Your task to perform on an android device: Play the last video I watched on Youtube Image 0: 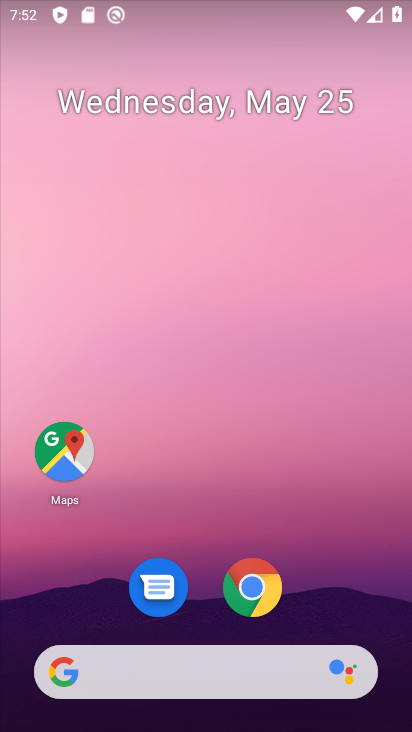
Step 0: drag from (309, 600) to (269, 104)
Your task to perform on an android device: Play the last video I watched on Youtube Image 1: 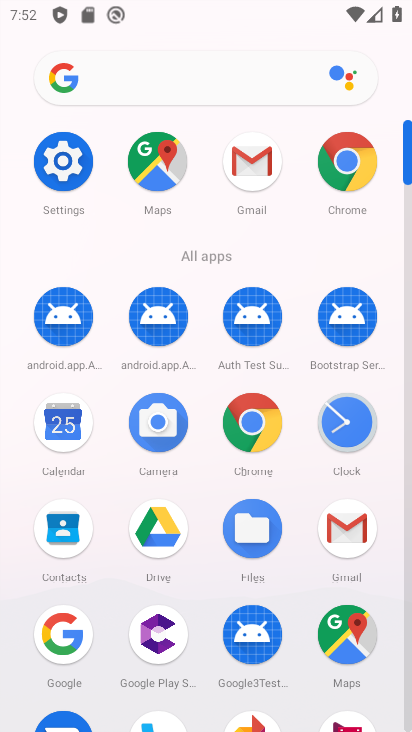
Step 1: drag from (272, 291) to (324, 6)
Your task to perform on an android device: Play the last video I watched on Youtube Image 2: 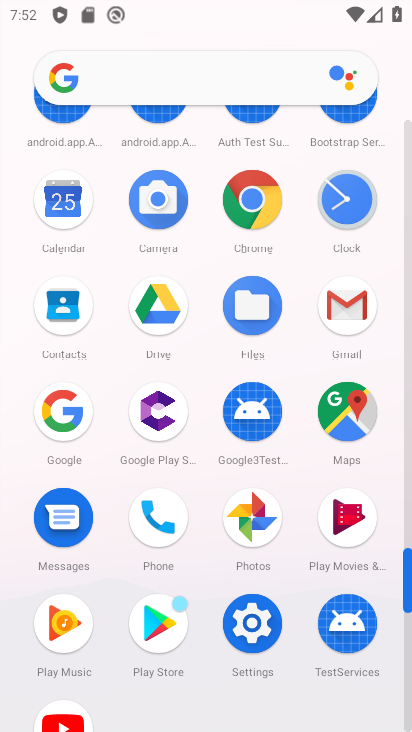
Step 2: click (62, 711)
Your task to perform on an android device: Play the last video I watched on Youtube Image 3: 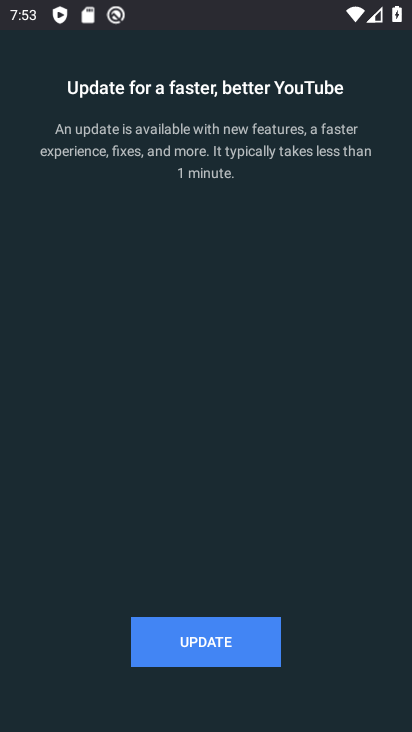
Step 3: click (181, 658)
Your task to perform on an android device: Play the last video I watched on Youtube Image 4: 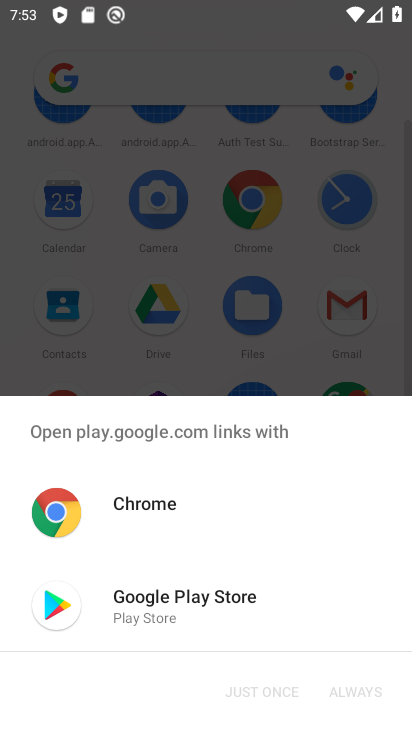
Step 4: click (143, 596)
Your task to perform on an android device: Play the last video I watched on Youtube Image 5: 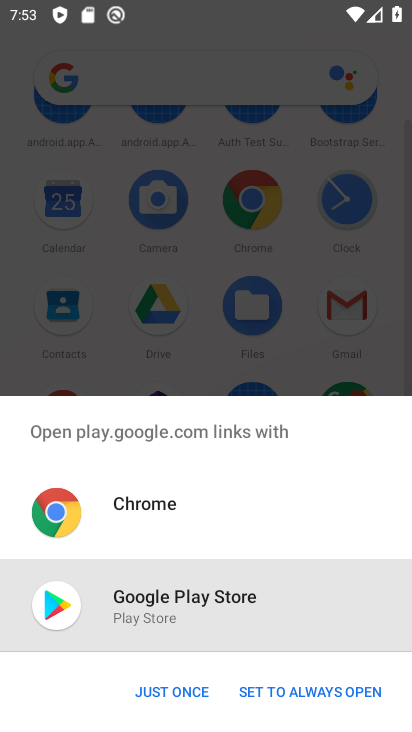
Step 5: click (170, 683)
Your task to perform on an android device: Play the last video I watched on Youtube Image 6: 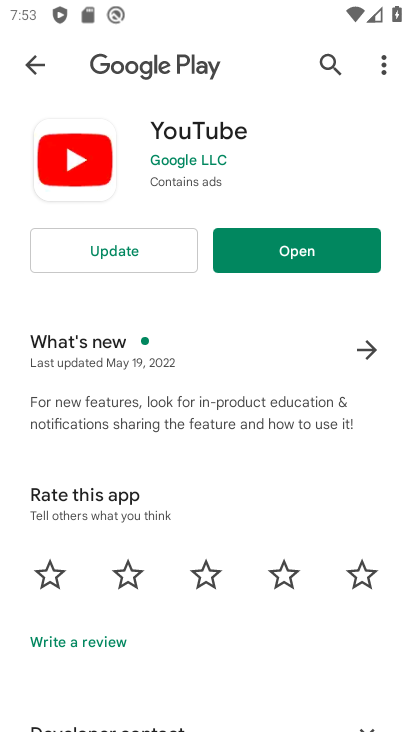
Step 6: click (122, 249)
Your task to perform on an android device: Play the last video I watched on Youtube Image 7: 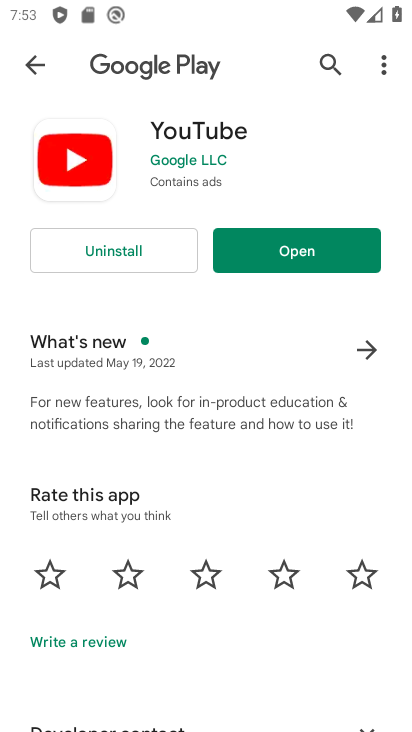
Step 7: click (255, 249)
Your task to perform on an android device: Play the last video I watched on Youtube Image 8: 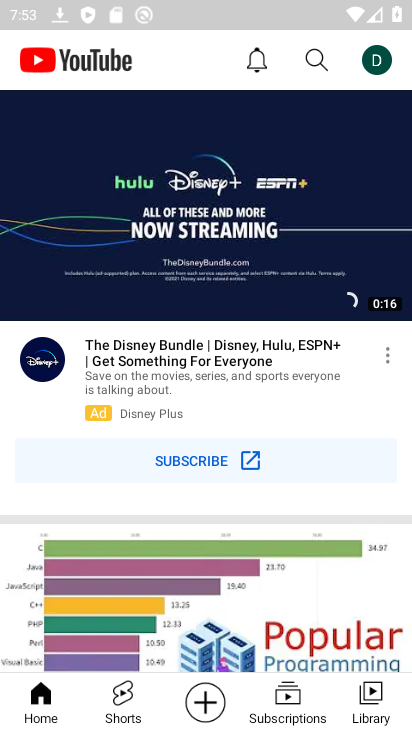
Step 8: click (364, 694)
Your task to perform on an android device: Play the last video I watched on Youtube Image 9: 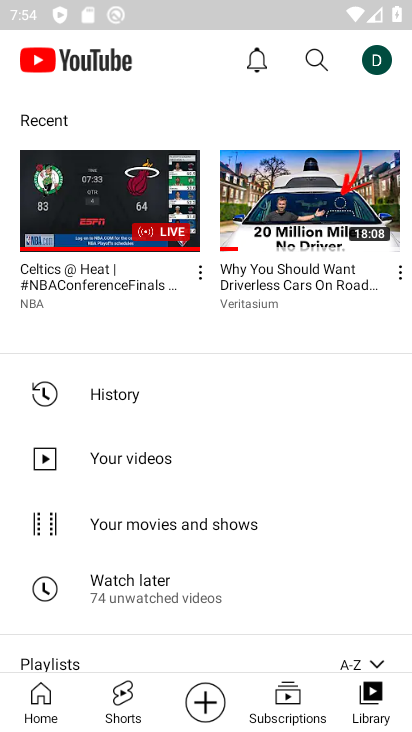
Step 9: click (70, 217)
Your task to perform on an android device: Play the last video I watched on Youtube Image 10: 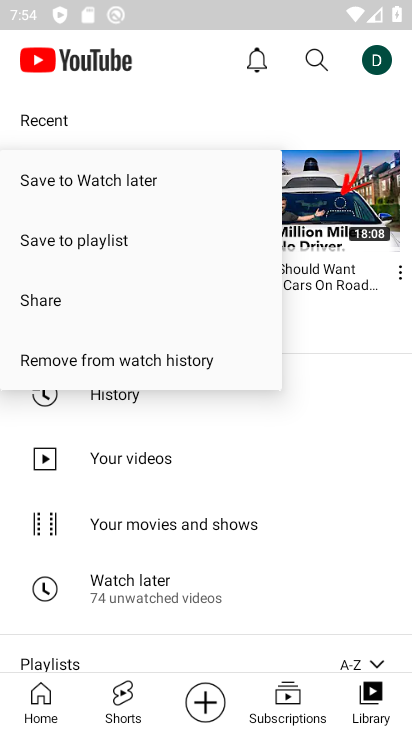
Step 10: click (333, 491)
Your task to perform on an android device: Play the last video I watched on Youtube Image 11: 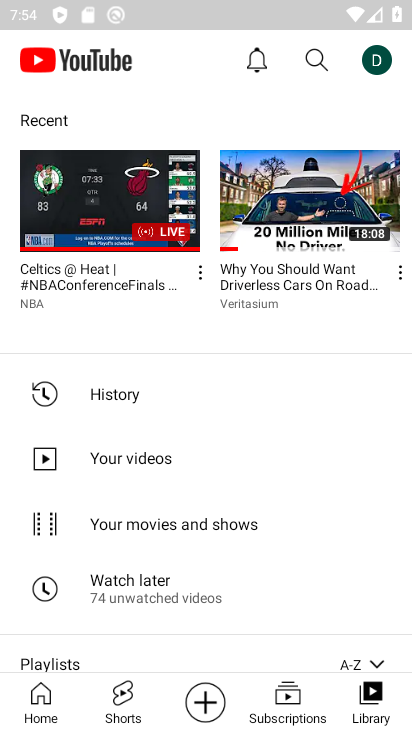
Step 11: click (113, 207)
Your task to perform on an android device: Play the last video I watched on Youtube Image 12: 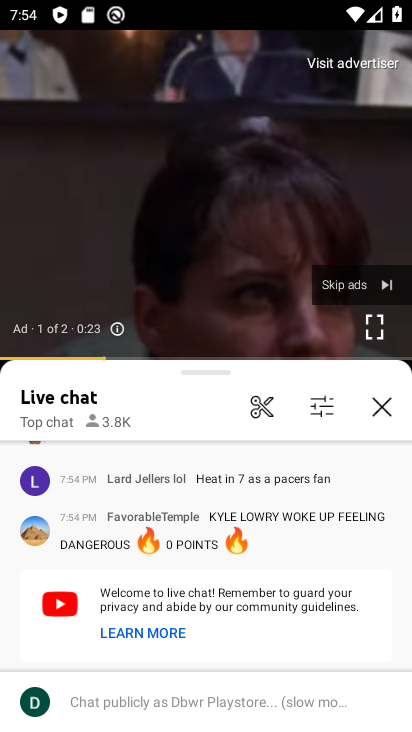
Step 12: task complete